Your task to perform on an android device: Open Maps and search for coffee Image 0: 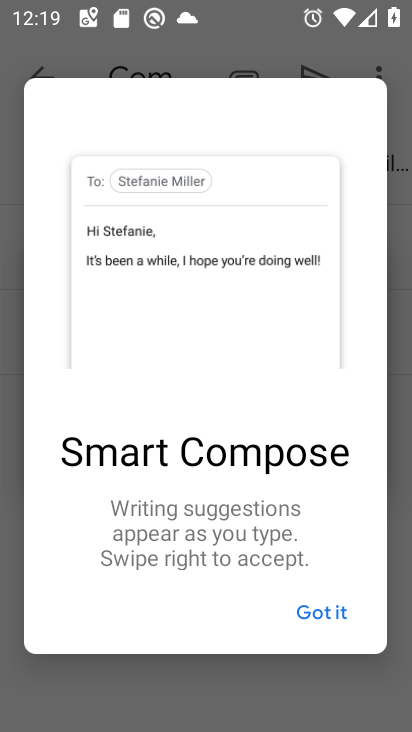
Step 0: press home button
Your task to perform on an android device: Open Maps and search for coffee Image 1: 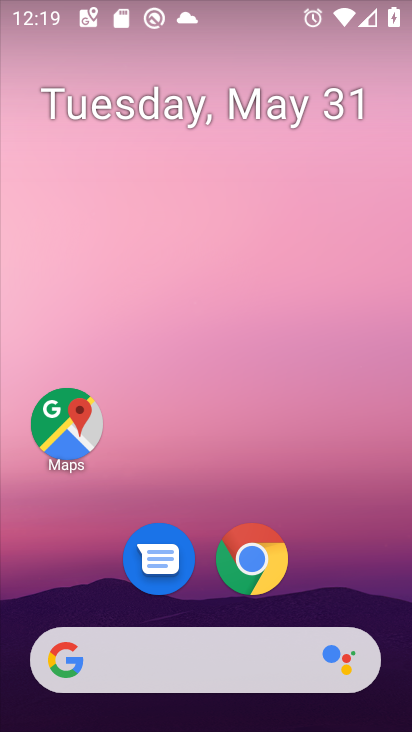
Step 1: drag from (356, 605) to (272, 186)
Your task to perform on an android device: Open Maps and search for coffee Image 2: 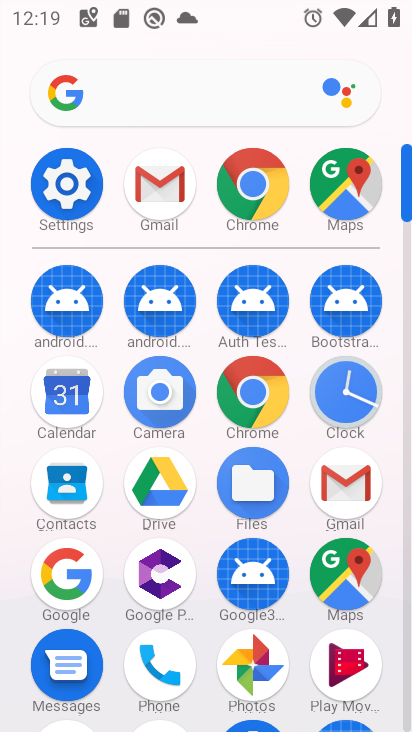
Step 2: click (348, 176)
Your task to perform on an android device: Open Maps and search for coffee Image 3: 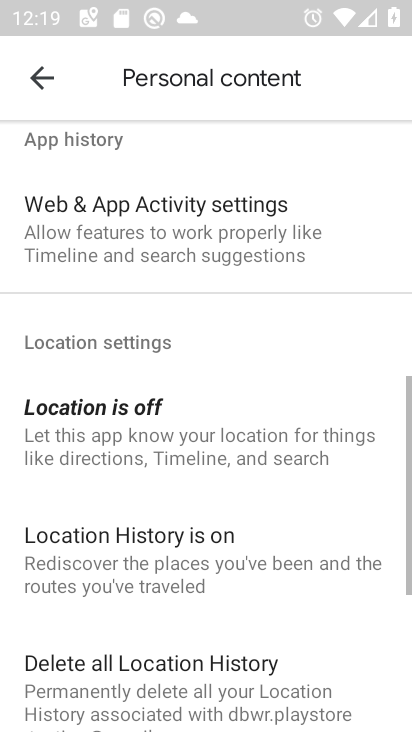
Step 3: click (40, 94)
Your task to perform on an android device: Open Maps and search for coffee Image 4: 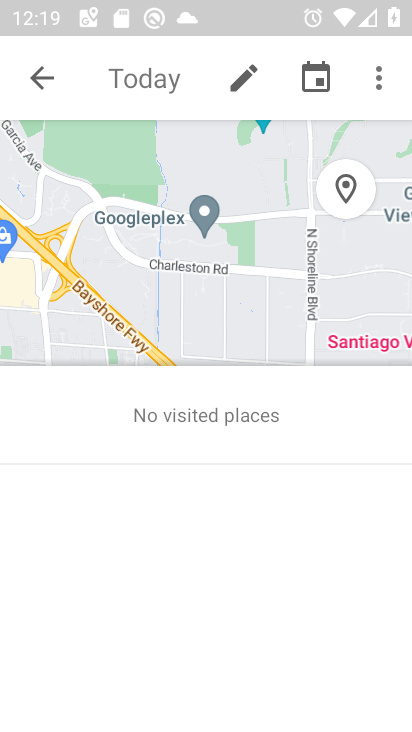
Step 4: click (40, 94)
Your task to perform on an android device: Open Maps and search for coffee Image 5: 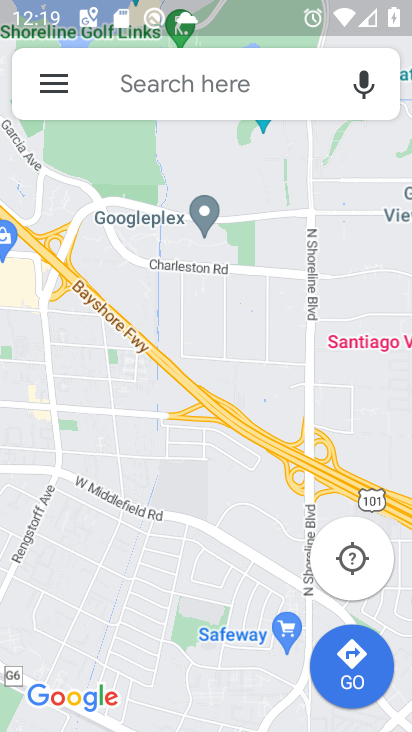
Step 5: click (155, 89)
Your task to perform on an android device: Open Maps and search for coffee Image 6: 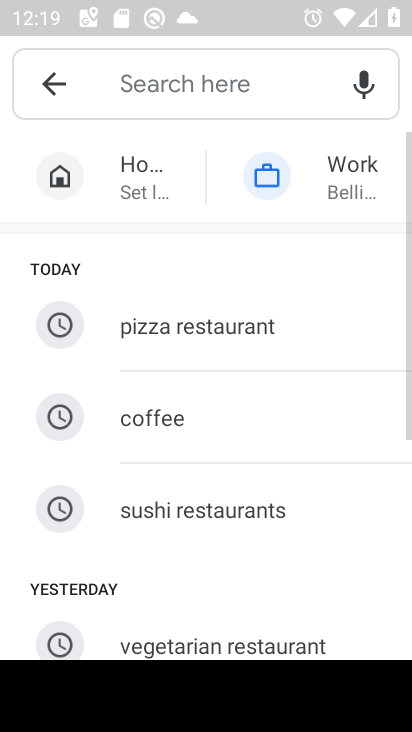
Step 6: click (181, 410)
Your task to perform on an android device: Open Maps and search for coffee Image 7: 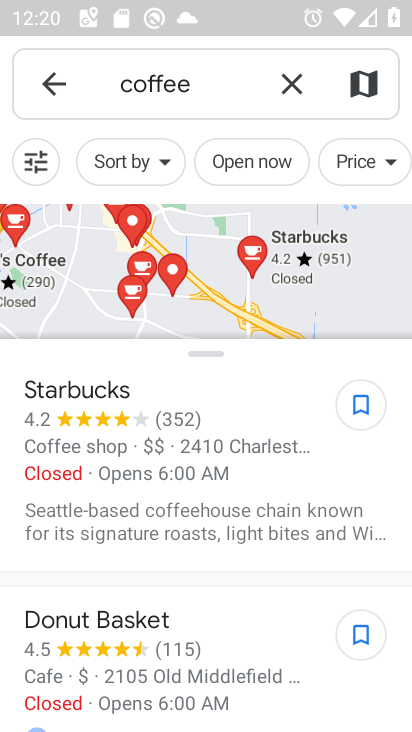
Step 7: task complete